Your task to perform on an android device: Go to Android settings Image 0: 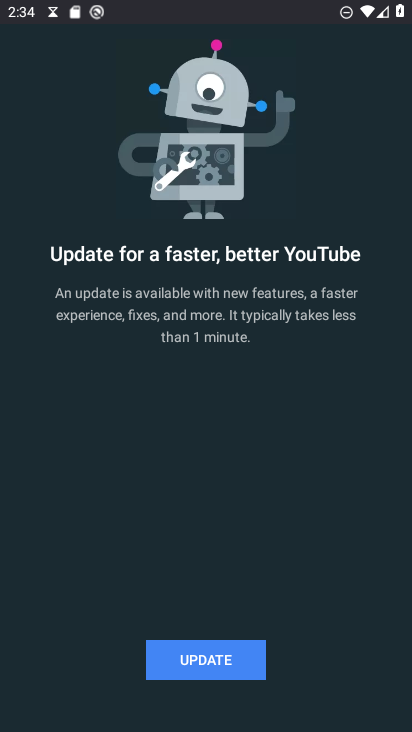
Step 0: press back button
Your task to perform on an android device: Go to Android settings Image 1: 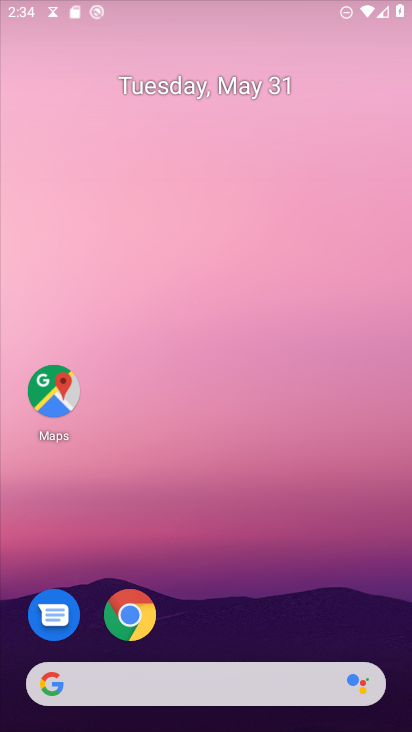
Step 1: drag from (255, 675) to (178, 97)
Your task to perform on an android device: Go to Android settings Image 2: 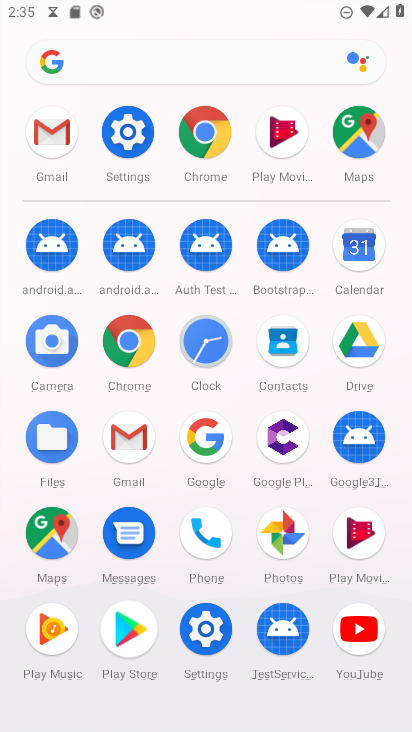
Step 2: click (137, 127)
Your task to perform on an android device: Go to Android settings Image 3: 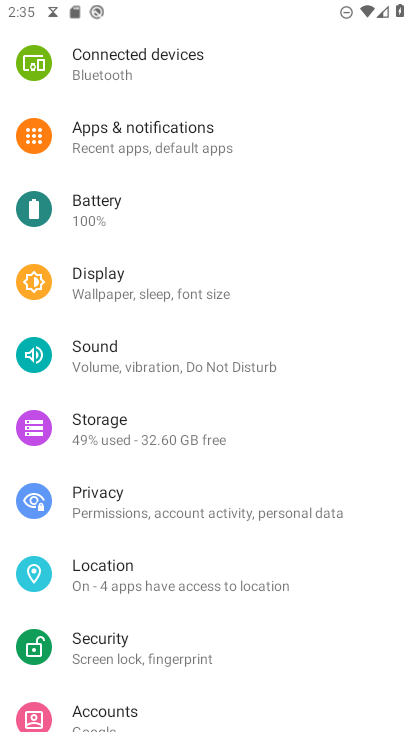
Step 3: drag from (125, 657) to (103, 310)
Your task to perform on an android device: Go to Android settings Image 4: 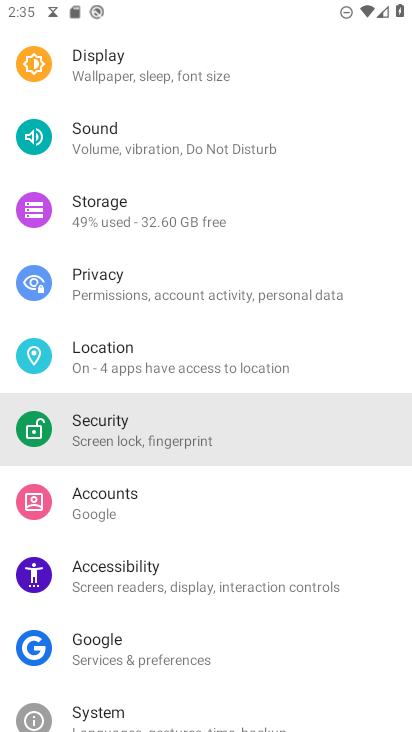
Step 4: drag from (215, 649) to (186, 239)
Your task to perform on an android device: Go to Android settings Image 5: 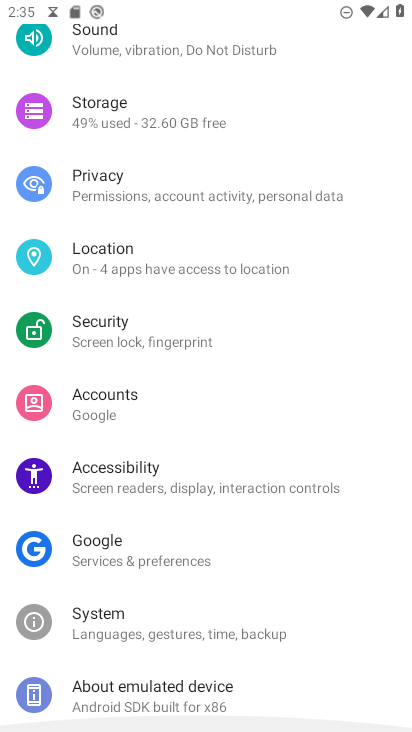
Step 5: drag from (226, 523) to (126, 167)
Your task to perform on an android device: Go to Android settings Image 6: 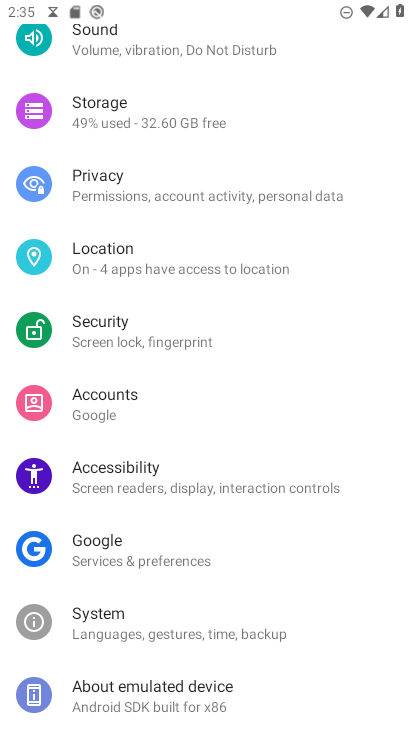
Step 6: drag from (163, 514) to (127, 309)
Your task to perform on an android device: Go to Android settings Image 7: 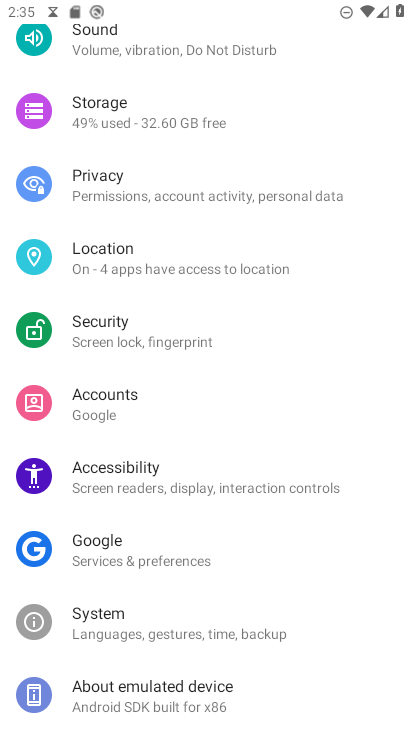
Step 7: click (122, 698)
Your task to perform on an android device: Go to Android settings Image 8: 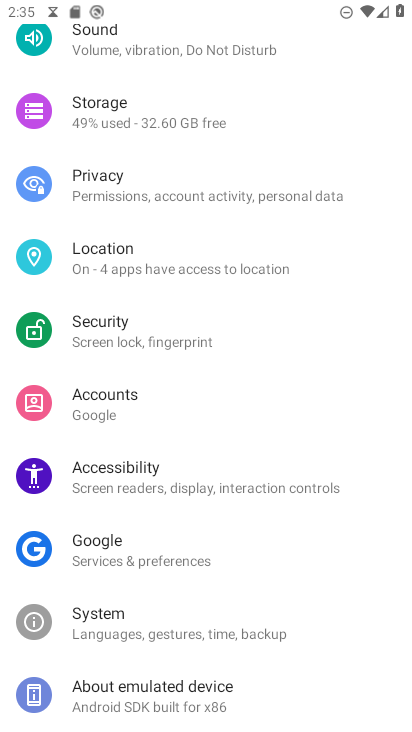
Step 8: click (120, 692)
Your task to perform on an android device: Go to Android settings Image 9: 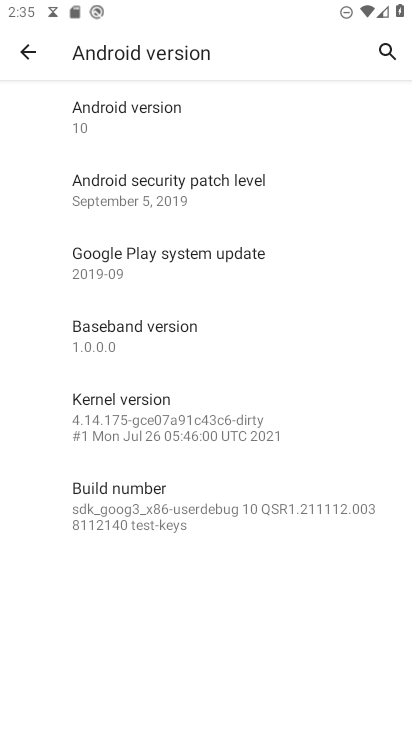
Step 9: task complete